Your task to perform on an android device: Search for pizza restaurants on Maps Image 0: 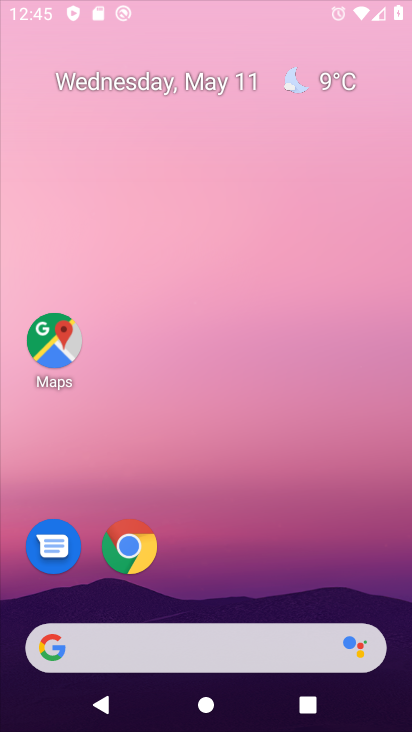
Step 0: drag from (230, 610) to (322, 306)
Your task to perform on an android device: Search for pizza restaurants on Maps Image 1: 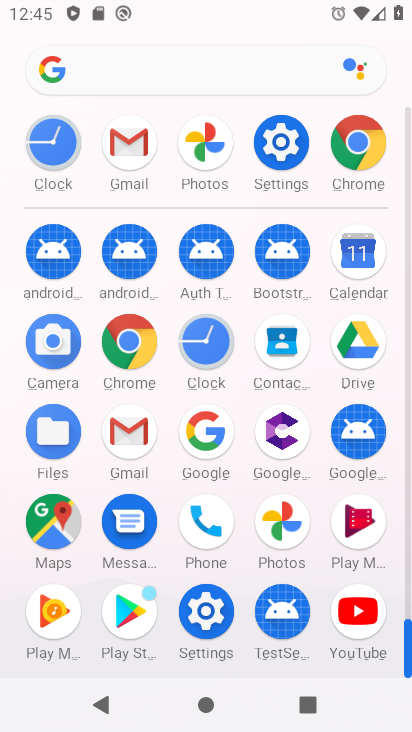
Step 1: click (57, 527)
Your task to perform on an android device: Search for pizza restaurants on Maps Image 2: 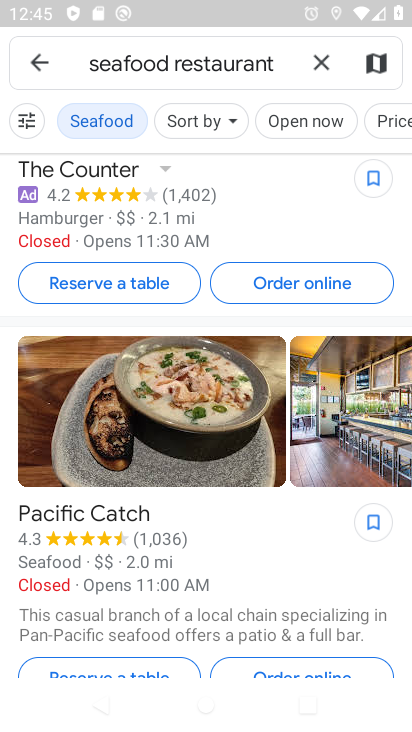
Step 2: click (323, 66)
Your task to perform on an android device: Search for pizza restaurants on Maps Image 3: 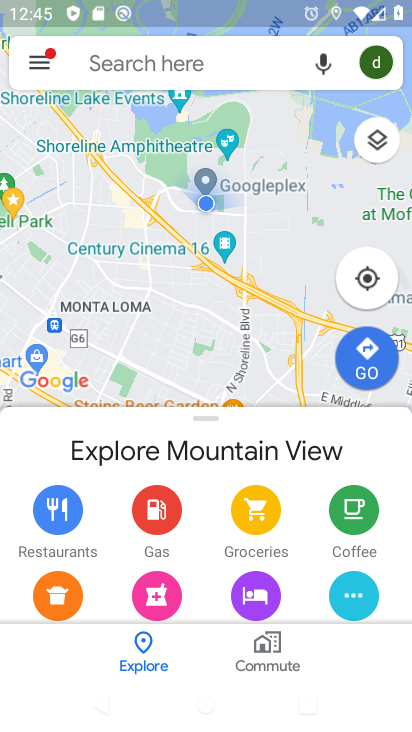
Step 3: click (161, 69)
Your task to perform on an android device: Search for pizza restaurants on Maps Image 4: 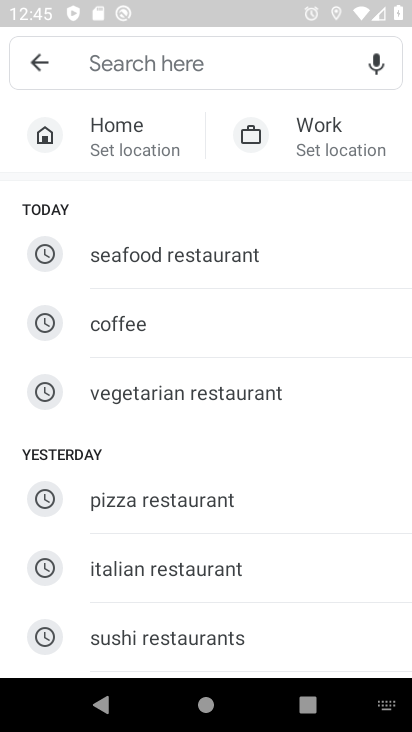
Step 4: click (155, 505)
Your task to perform on an android device: Search for pizza restaurants on Maps Image 5: 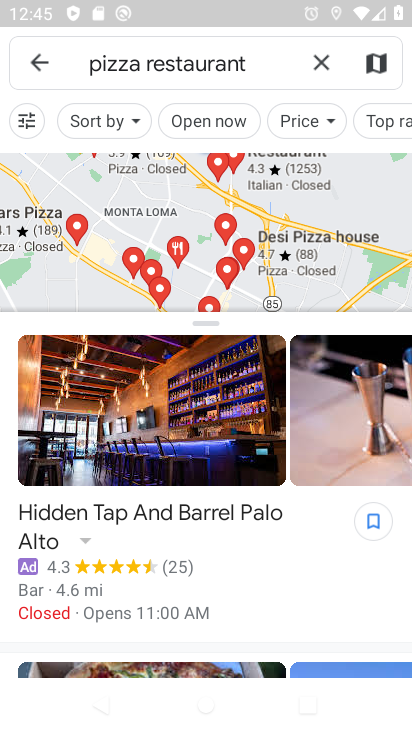
Step 5: task complete